Your task to perform on an android device: toggle translation in the chrome app Image 0: 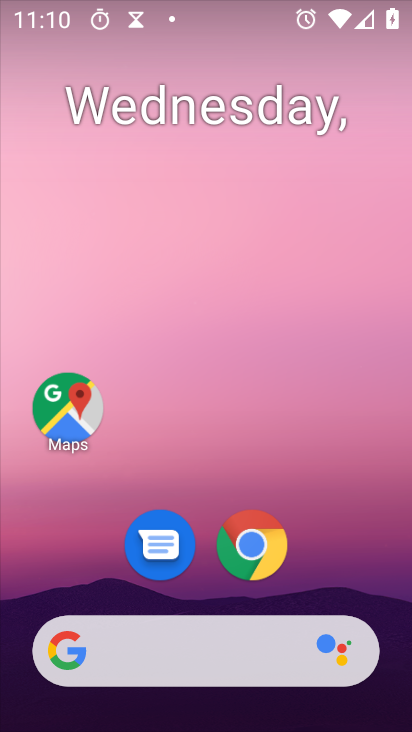
Step 0: press home button
Your task to perform on an android device: toggle translation in the chrome app Image 1: 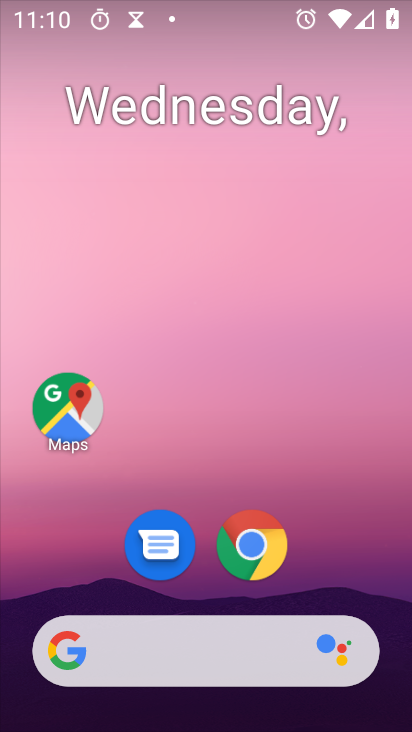
Step 1: click (246, 563)
Your task to perform on an android device: toggle translation in the chrome app Image 2: 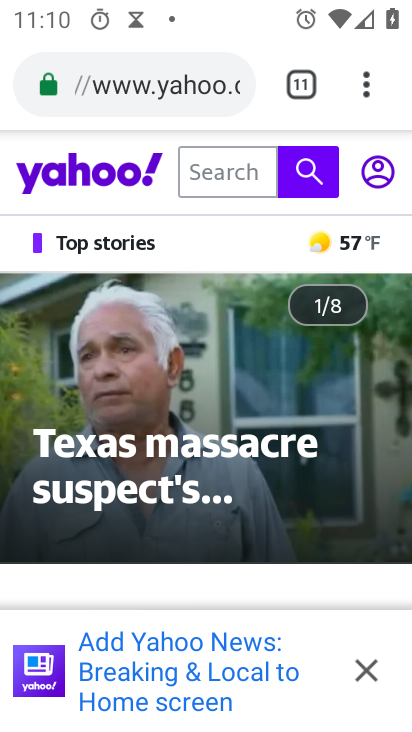
Step 2: drag from (367, 91) to (191, 593)
Your task to perform on an android device: toggle translation in the chrome app Image 3: 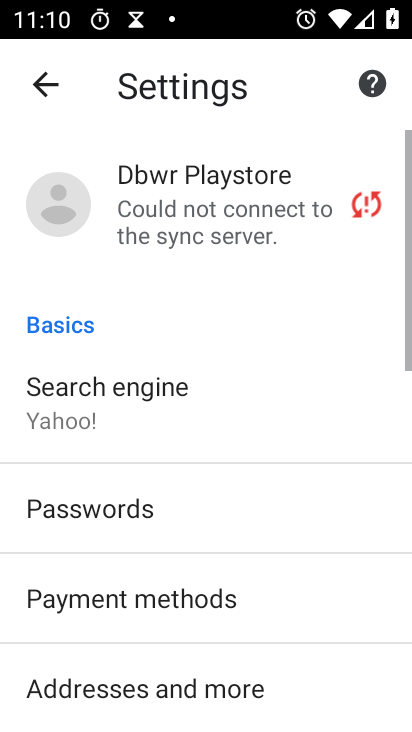
Step 3: drag from (220, 677) to (309, 251)
Your task to perform on an android device: toggle translation in the chrome app Image 4: 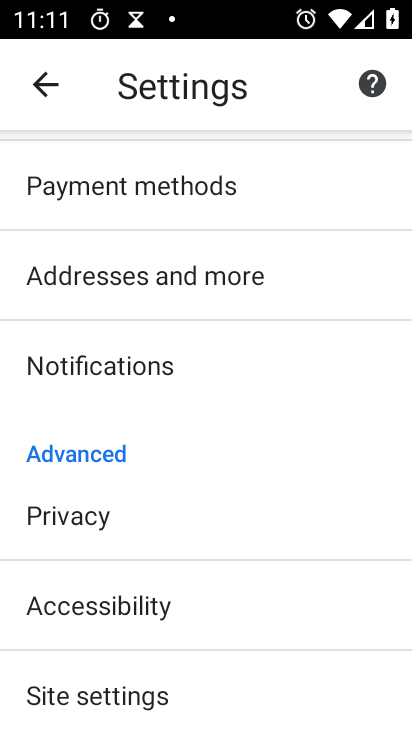
Step 4: drag from (207, 658) to (301, 308)
Your task to perform on an android device: toggle translation in the chrome app Image 5: 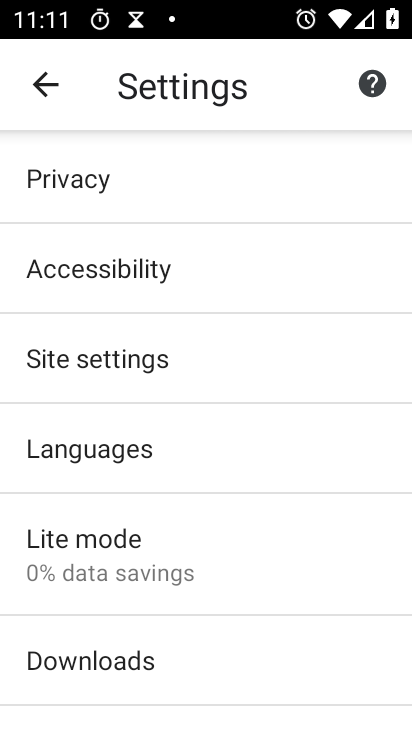
Step 5: click (149, 438)
Your task to perform on an android device: toggle translation in the chrome app Image 6: 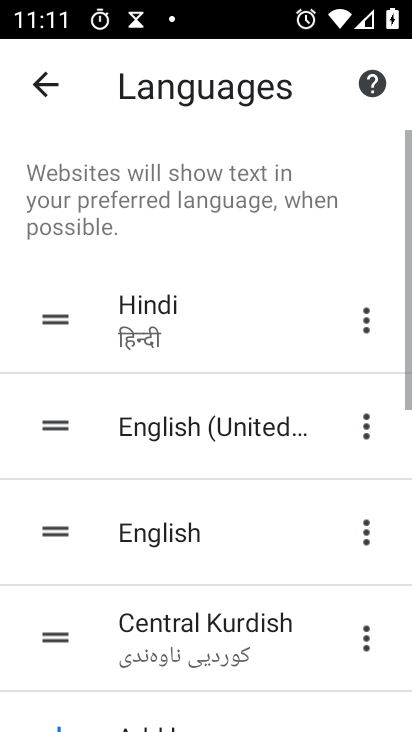
Step 6: drag from (229, 608) to (351, 131)
Your task to perform on an android device: toggle translation in the chrome app Image 7: 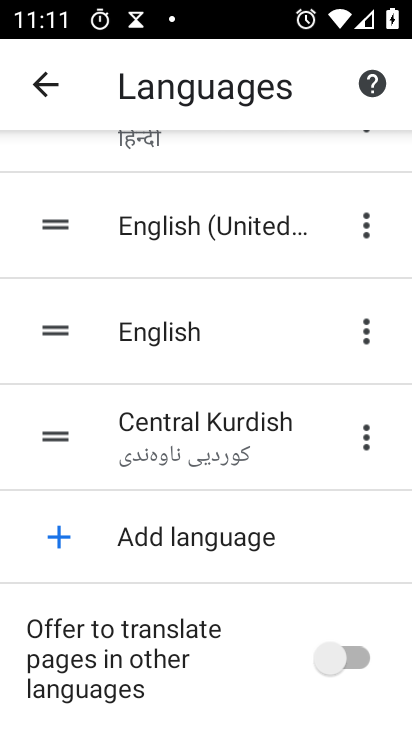
Step 7: click (358, 660)
Your task to perform on an android device: toggle translation in the chrome app Image 8: 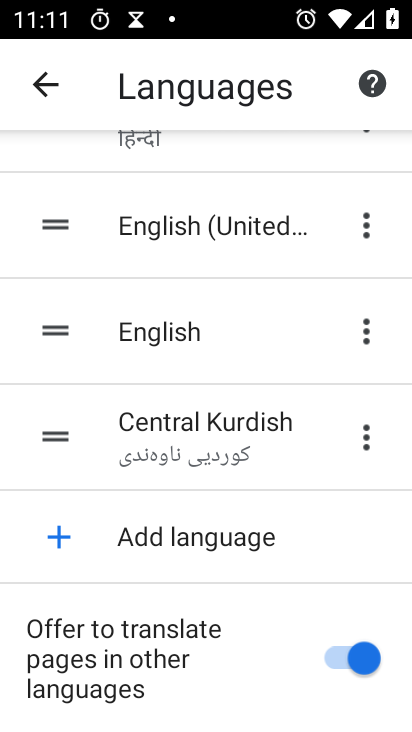
Step 8: task complete